Your task to perform on an android device: allow notifications from all sites in the chrome app Image 0: 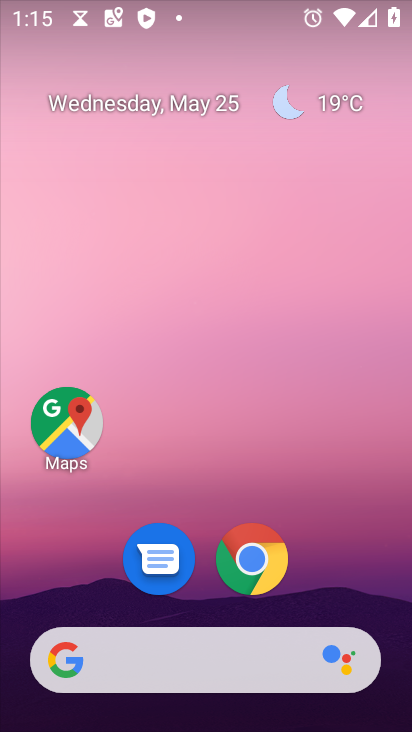
Step 0: drag from (342, 592) to (395, 56)
Your task to perform on an android device: allow notifications from all sites in the chrome app Image 1: 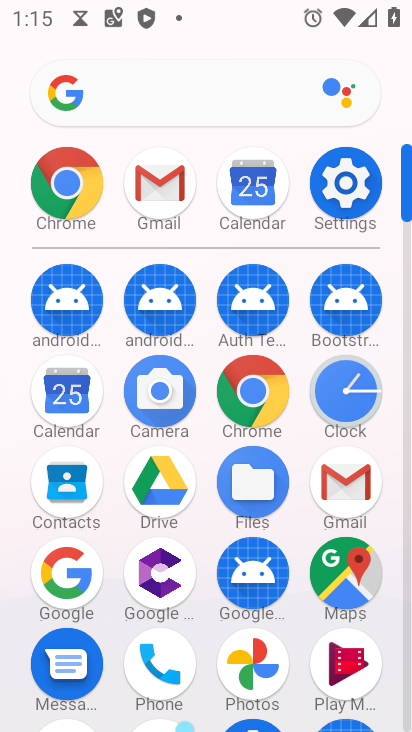
Step 1: click (53, 182)
Your task to perform on an android device: allow notifications from all sites in the chrome app Image 2: 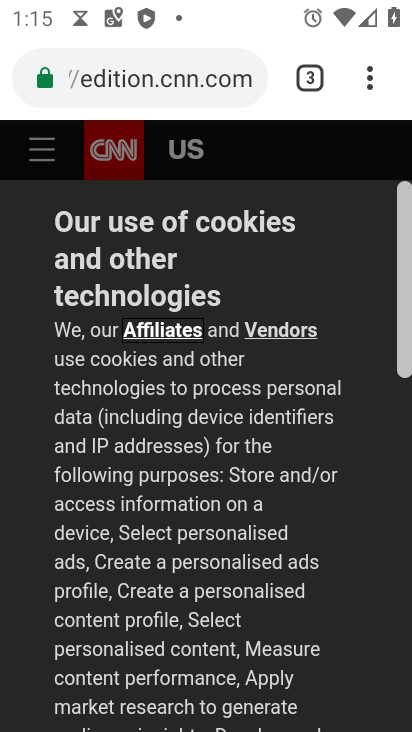
Step 2: drag from (359, 88) to (186, 609)
Your task to perform on an android device: allow notifications from all sites in the chrome app Image 3: 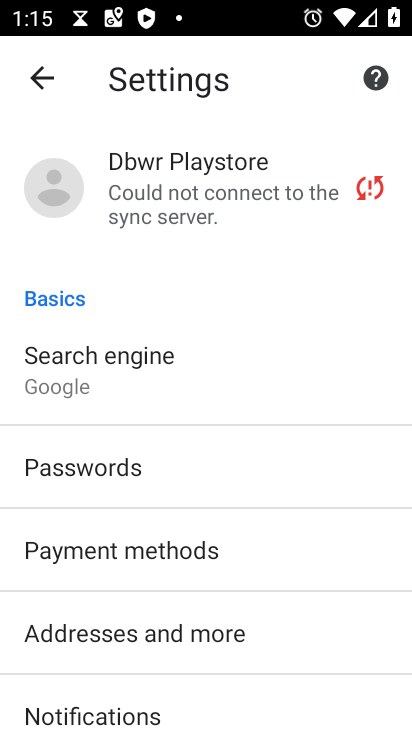
Step 3: drag from (210, 662) to (312, 146)
Your task to perform on an android device: allow notifications from all sites in the chrome app Image 4: 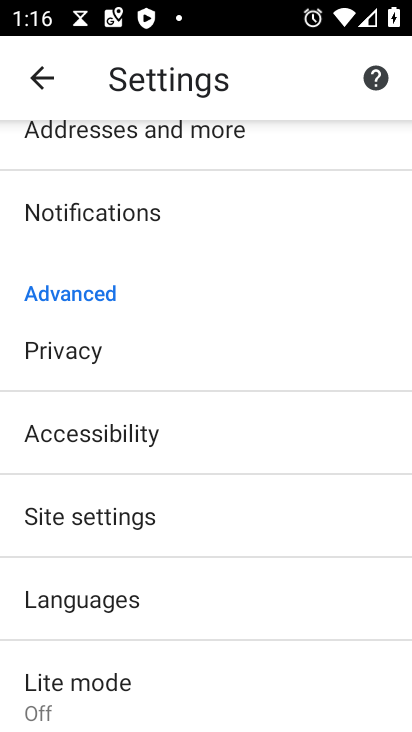
Step 4: click (124, 204)
Your task to perform on an android device: allow notifications from all sites in the chrome app Image 5: 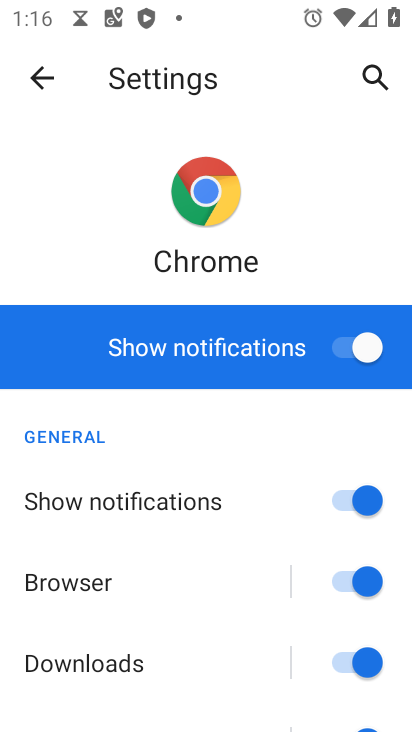
Step 5: click (24, 90)
Your task to perform on an android device: allow notifications from all sites in the chrome app Image 6: 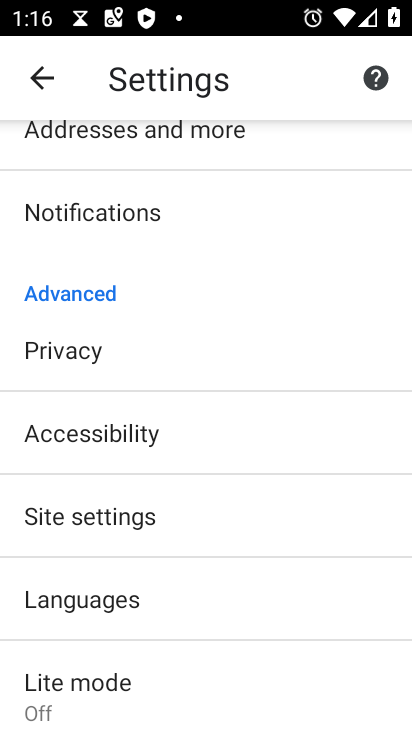
Step 6: click (134, 521)
Your task to perform on an android device: allow notifications from all sites in the chrome app Image 7: 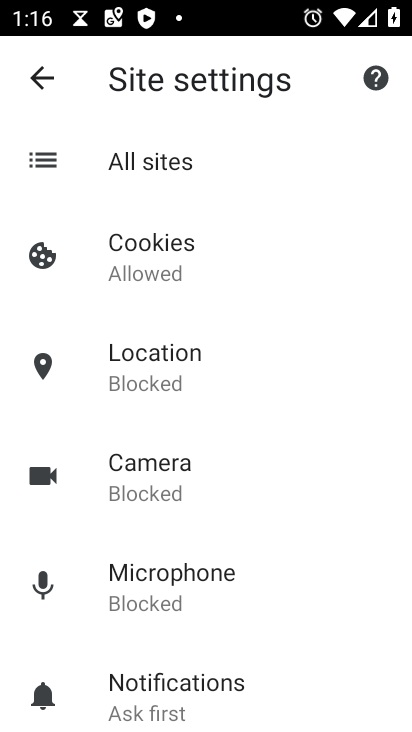
Step 7: drag from (158, 538) to (239, 107)
Your task to perform on an android device: allow notifications from all sites in the chrome app Image 8: 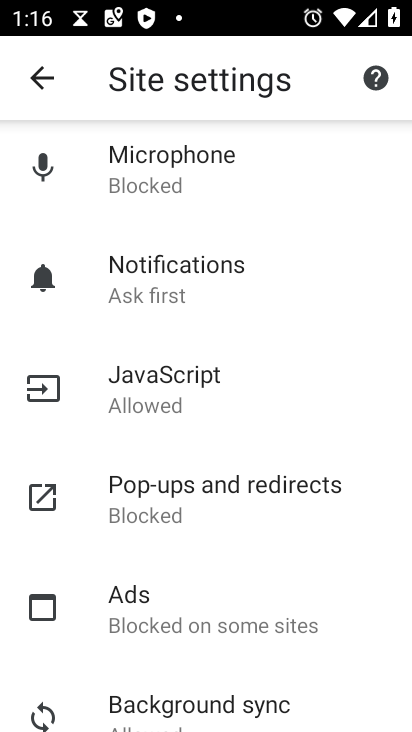
Step 8: drag from (239, 627) to (267, 144)
Your task to perform on an android device: allow notifications from all sites in the chrome app Image 9: 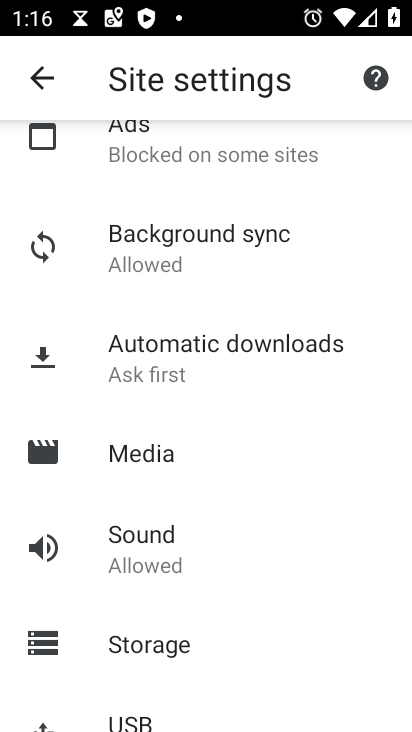
Step 9: drag from (260, 212) to (334, 673)
Your task to perform on an android device: allow notifications from all sites in the chrome app Image 10: 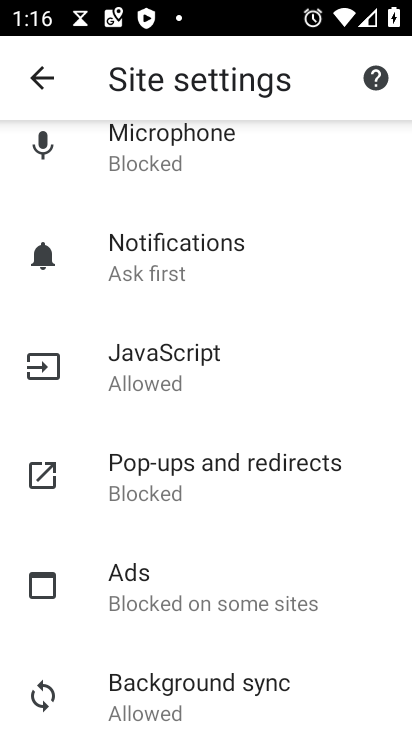
Step 10: drag from (252, 206) to (311, 650)
Your task to perform on an android device: allow notifications from all sites in the chrome app Image 11: 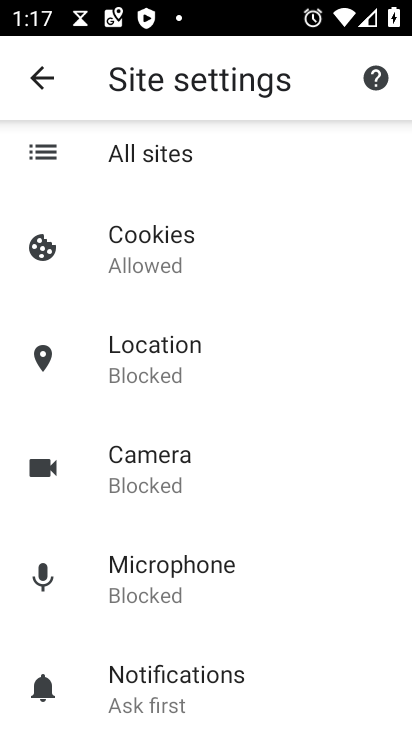
Step 11: drag from (227, 687) to (252, 208)
Your task to perform on an android device: allow notifications from all sites in the chrome app Image 12: 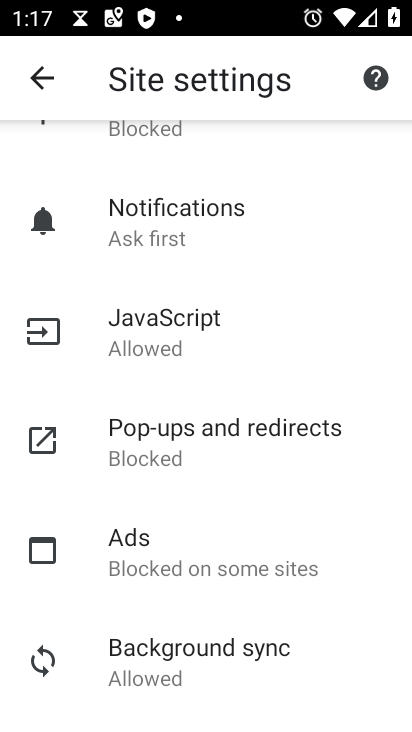
Step 12: click (130, 239)
Your task to perform on an android device: allow notifications from all sites in the chrome app Image 13: 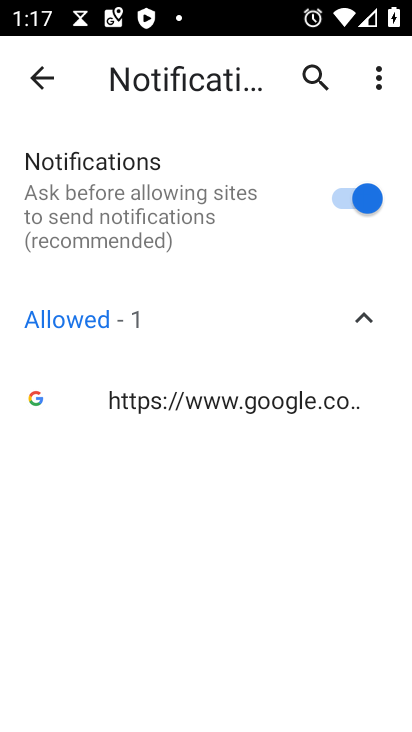
Step 13: click (55, 80)
Your task to perform on an android device: allow notifications from all sites in the chrome app Image 14: 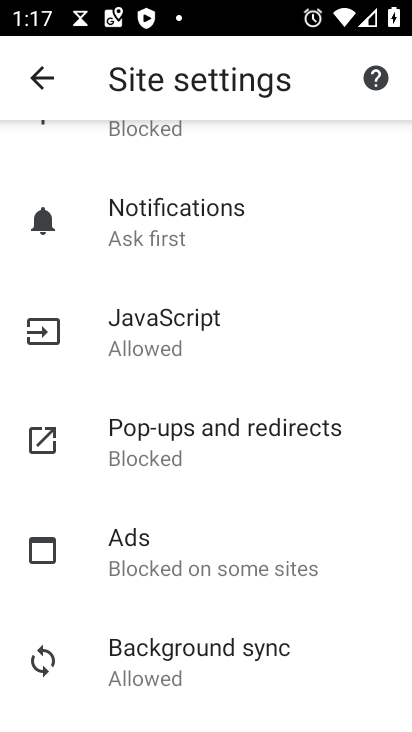
Step 14: drag from (166, 285) to (306, 731)
Your task to perform on an android device: allow notifications from all sites in the chrome app Image 15: 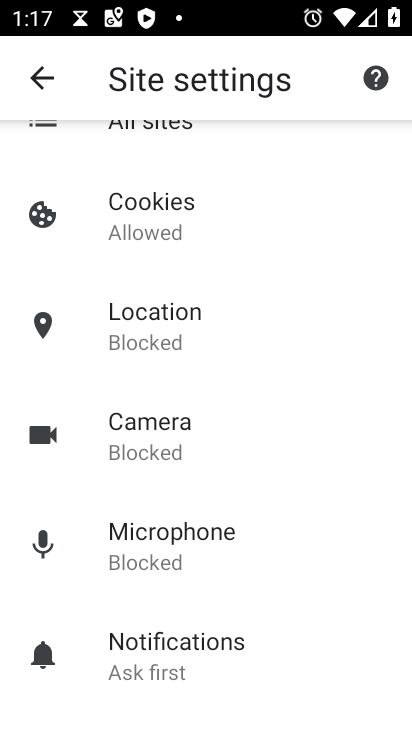
Step 15: drag from (166, 216) to (220, 570)
Your task to perform on an android device: allow notifications from all sites in the chrome app Image 16: 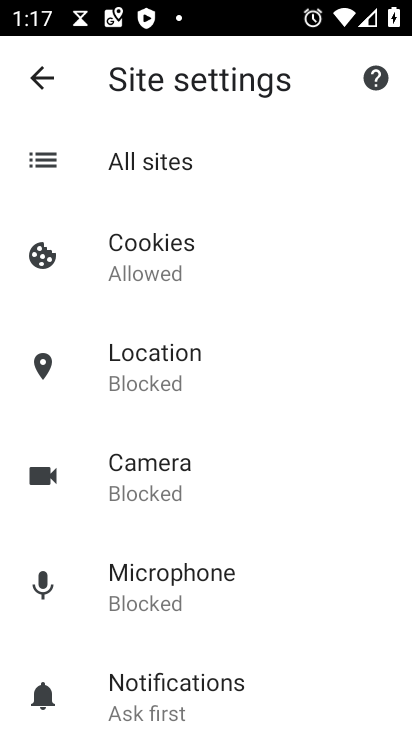
Step 16: click (197, 697)
Your task to perform on an android device: allow notifications from all sites in the chrome app Image 17: 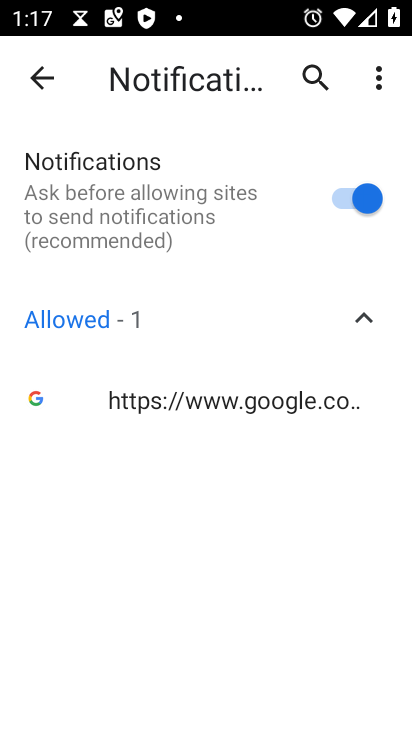
Step 17: task complete